Your task to perform on an android device: find snoozed emails in the gmail app Image 0: 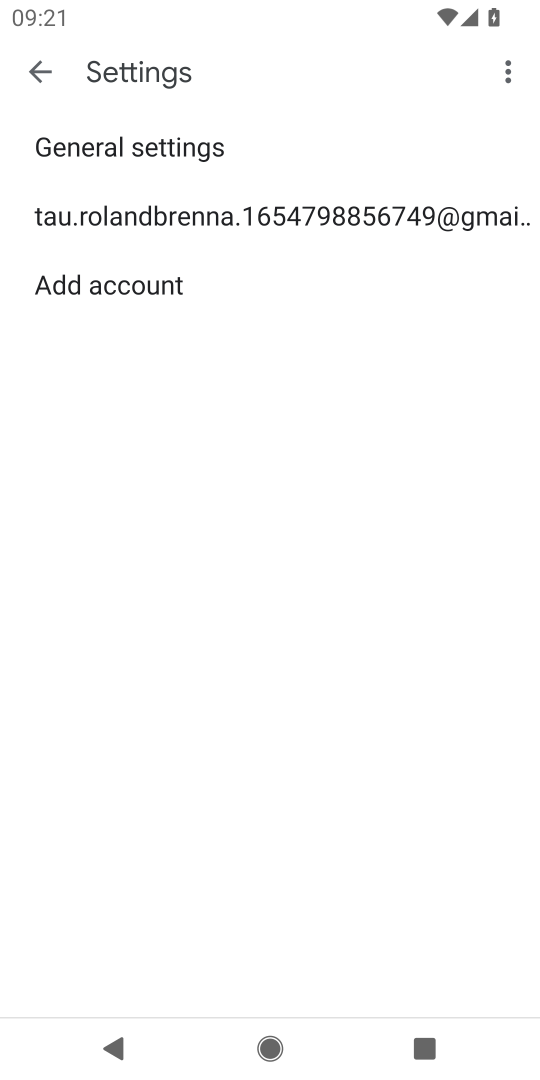
Step 0: press home button
Your task to perform on an android device: find snoozed emails in the gmail app Image 1: 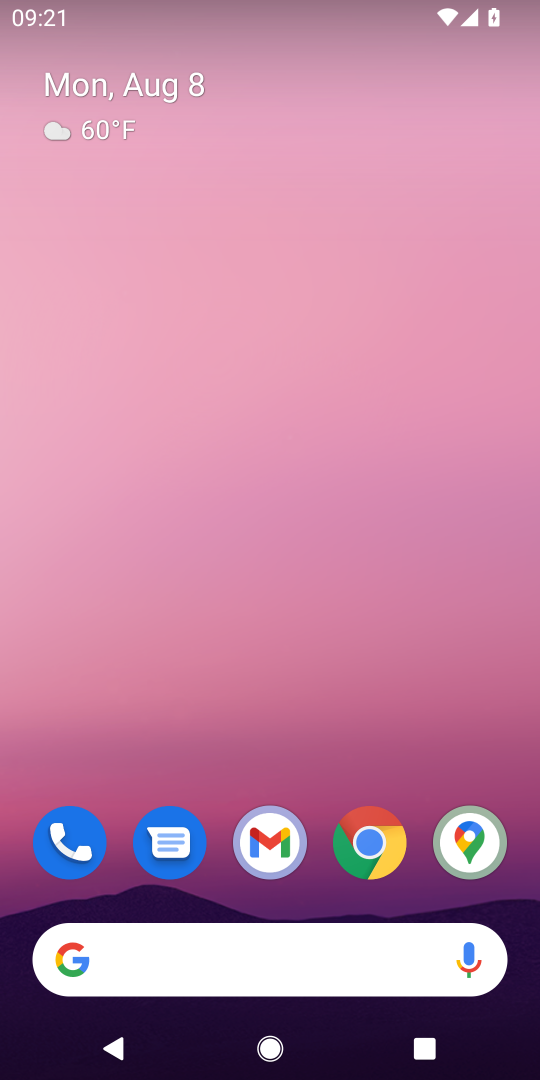
Step 1: click (262, 864)
Your task to perform on an android device: find snoozed emails in the gmail app Image 2: 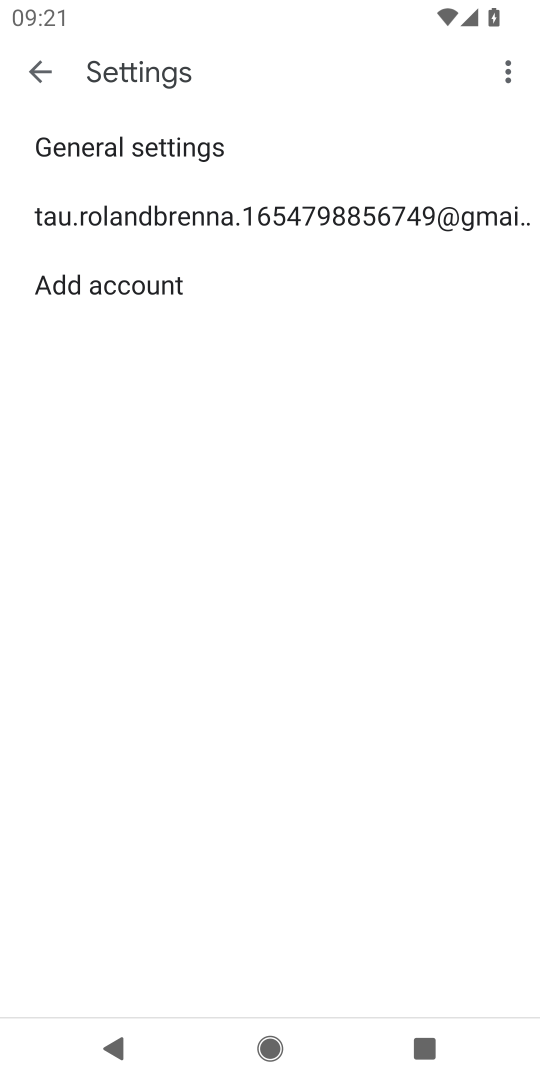
Step 2: click (40, 67)
Your task to perform on an android device: find snoozed emails in the gmail app Image 3: 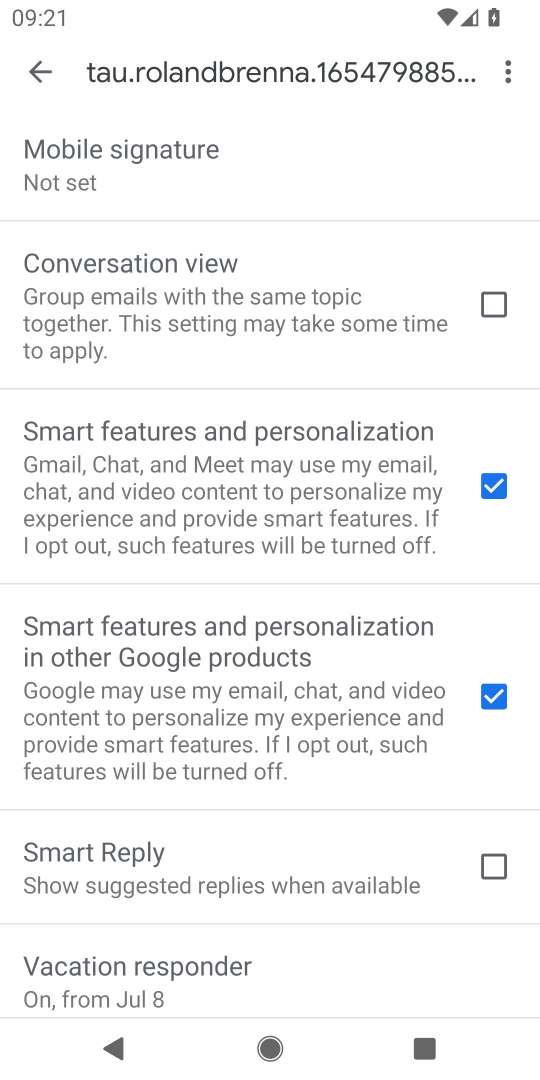
Step 3: click (43, 80)
Your task to perform on an android device: find snoozed emails in the gmail app Image 4: 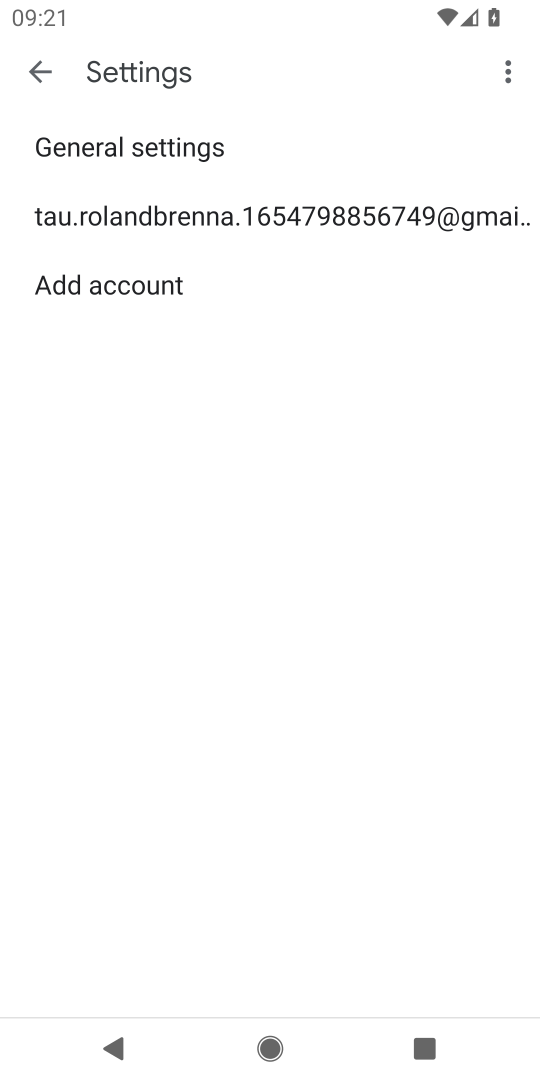
Step 4: click (38, 73)
Your task to perform on an android device: find snoozed emails in the gmail app Image 5: 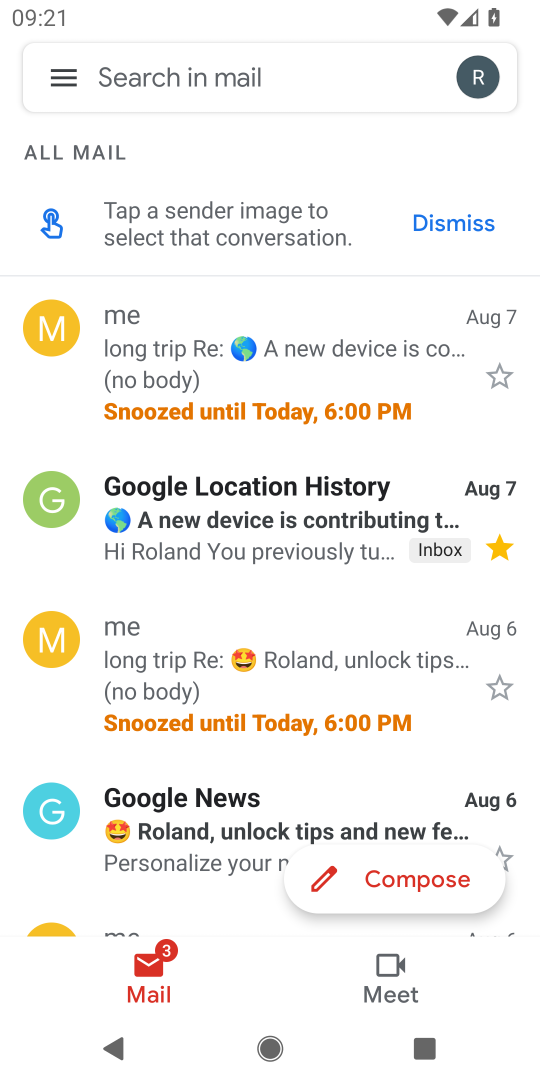
Step 5: click (50, 73)
Your task to perform on an android device: find snoozed emails in the gmail app Image 6: 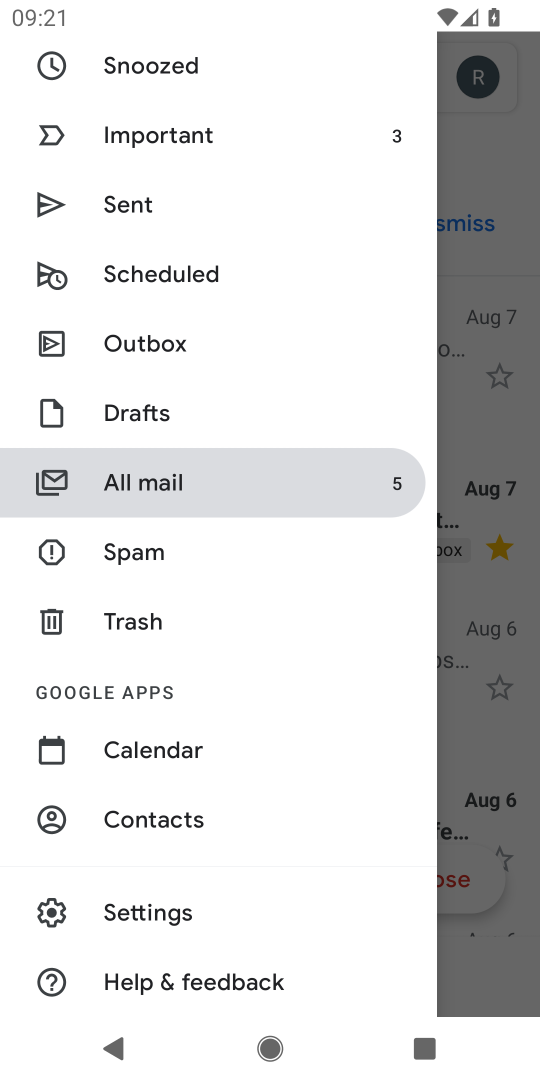
Step 6: click (158, 80)
Your task to perform on an android device: find snoozed emails in the gmail app Image 7: 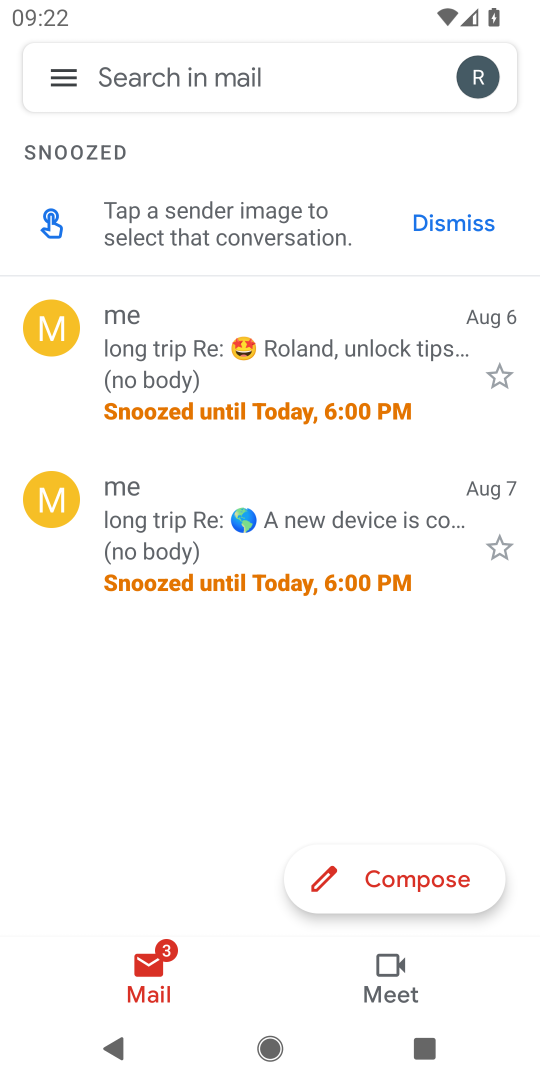
Step 7: task complete